Your task to perform on an android device: choose inbox layout in the gmail app Image 0: 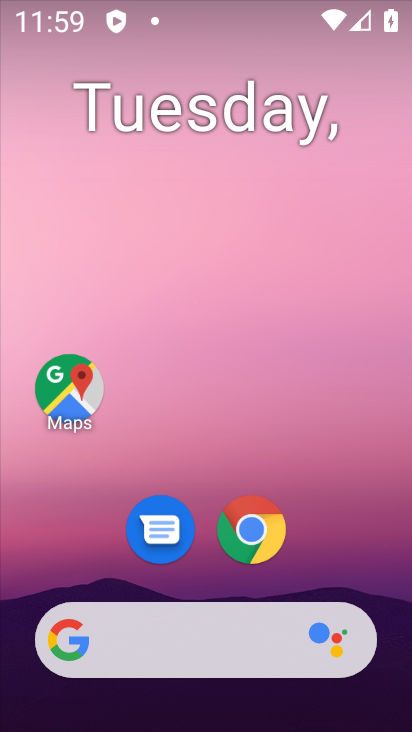
Step 0: click (260, 521)
Your task to perform on an android device: choose inbox layout in the gmail app Image 1: 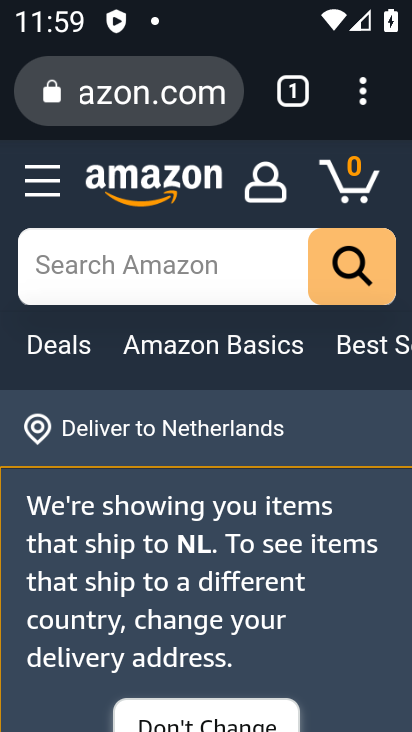
Step 1: press home button
Your task to perform on an android device: choose inbox layout in the gmail app Image 2: 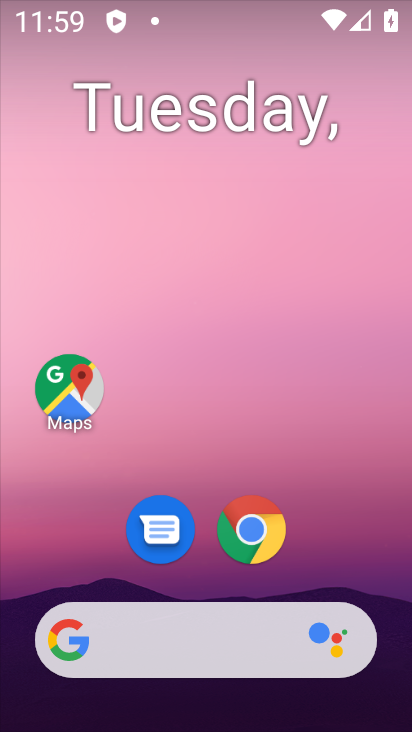
Step 2: drag from (214, 580) to (198, 98)
Your task to perform on an android device: choose inbox layout in the gmail app Image 3: 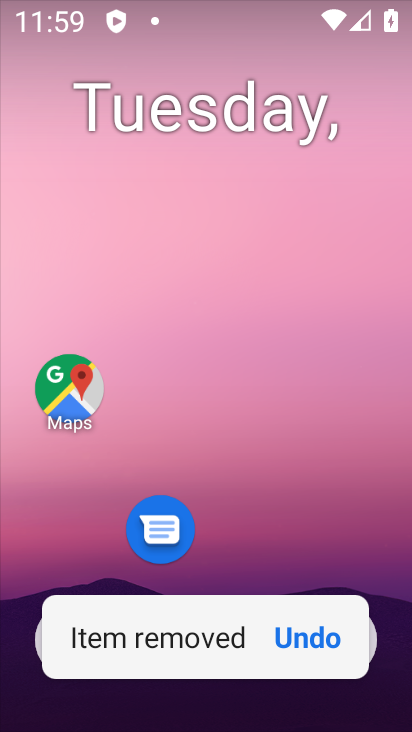
Step 3: click (212, 572)
Your task to perform on an android device: choose inbox layout in the gmail app Image 4: 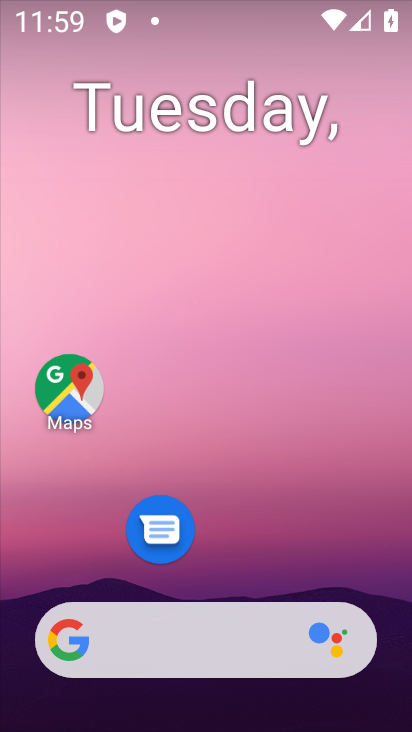
Step 4: drag from (214, 571) to (146, 90)
Your task to perform on an android device: choose inbox layout in the gmail app Image 5: 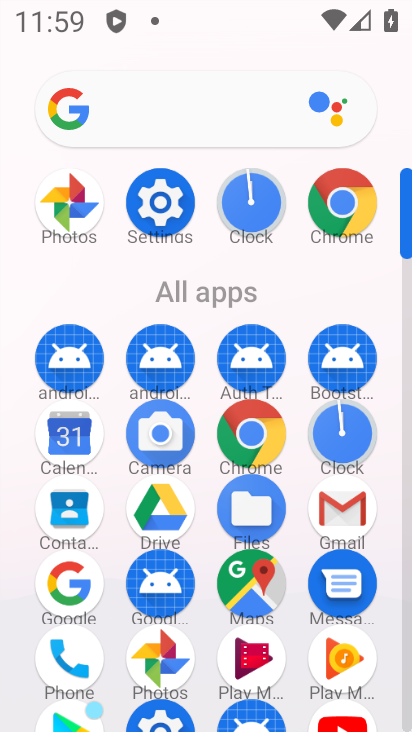
Step 5: click (349, 507)
Your task to perform on an android device: choose inbox layout in the gmail app Image 6: 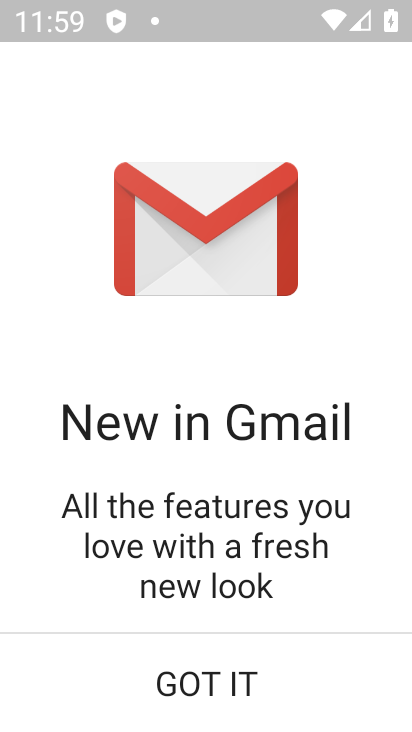
Step 6: click (188, 644)
Your task to perform on an android device: choose inbox layout in the gmail app Image 7: 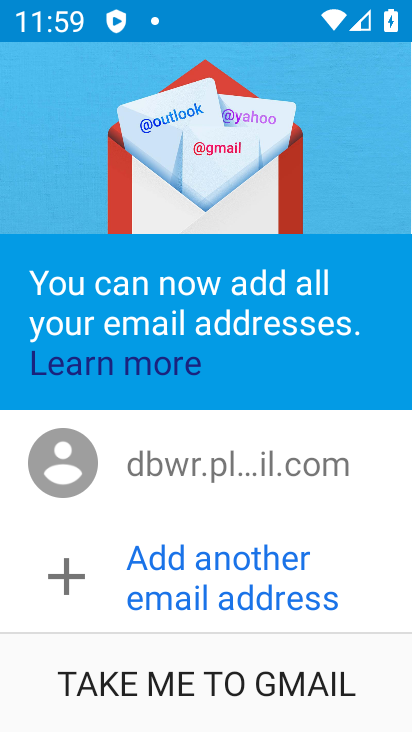
Step 7: click (207, 663)
Your task to perform on an android device: choose inbox layout in the gmail app Image 8: 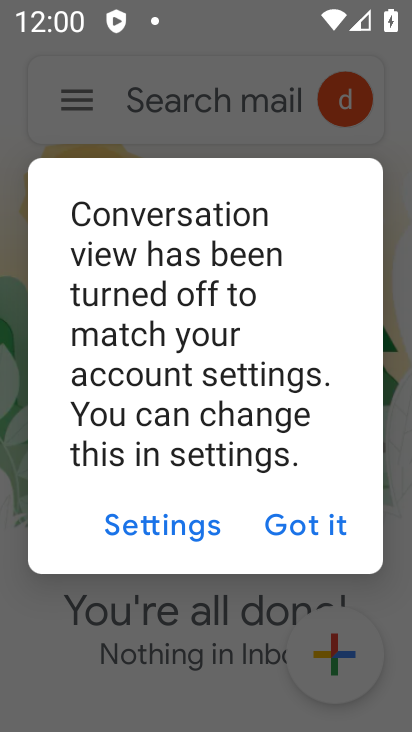
Step 8: click (288, 541)
Your task to perform on an android device: choose inbox layout in the gmail app Image 9: 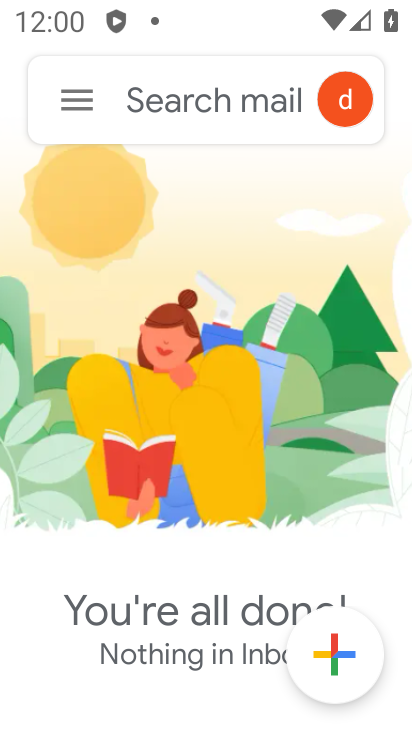
Step 9: click (67, 113)
Your task to perform on an android device: choose inbox layout in the gmail app Image 10: 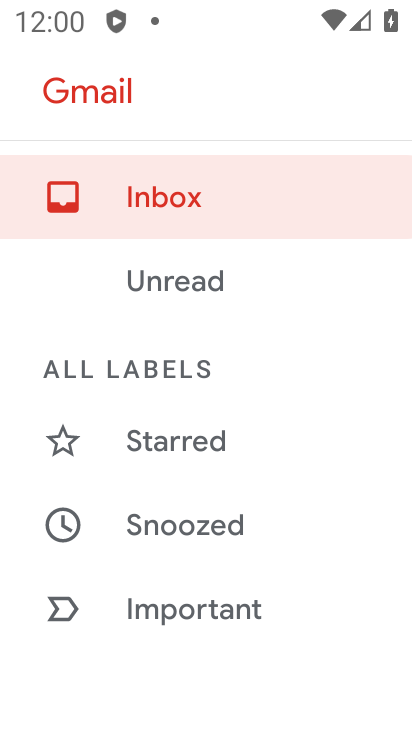
Step 10: click (140, 197)
Your task to perform on an android device: choose inbox layout in the gmail app Image 11: 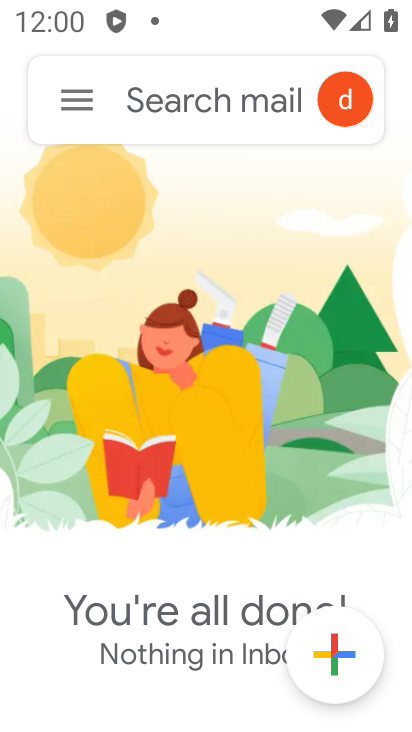
Step 11: task complete